Your task to perform on an android device: change alarm snooze length Image 0: 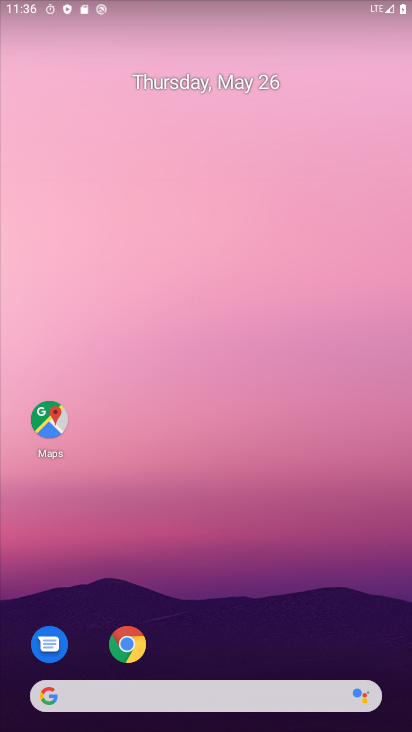
Step 0: drag from (129, 618) to (170, 113)
Your task to perform on an android device: change alarm snooze length Image 1: 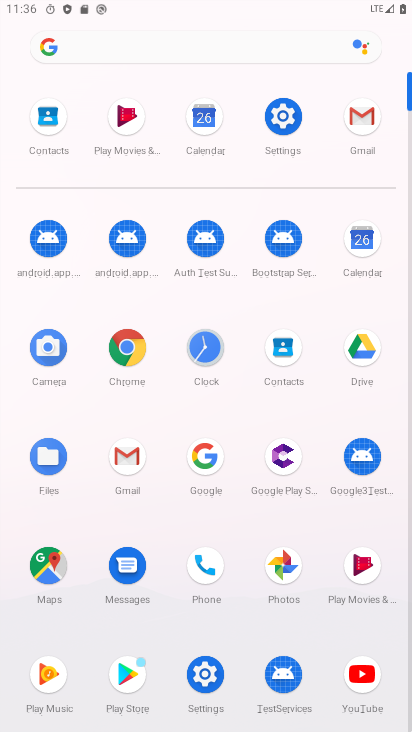
Step 1: click (199, 363)
Your task to perform on an android device: change alarm snooze length Image 2: 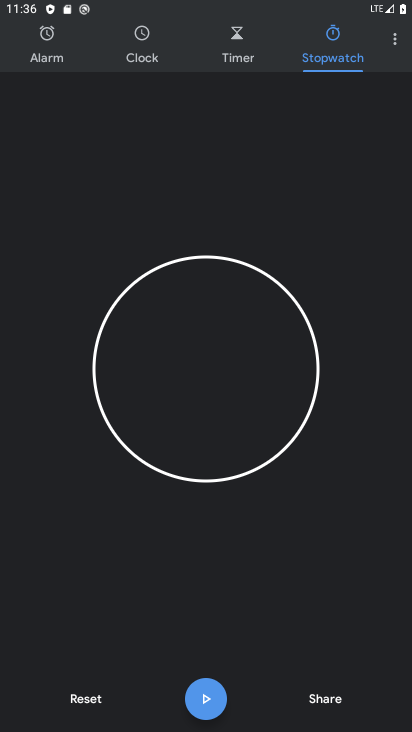
Step 2: click (395, 35)
Your task to perform on an android device: change alarm snooze length Image 3: 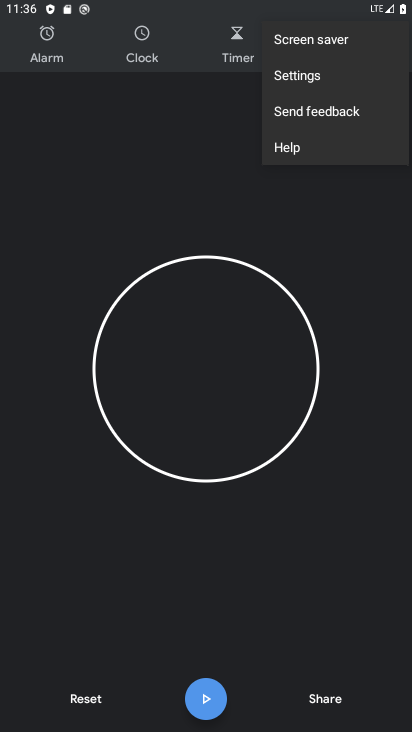
Step 3: click (312, 79)
Your task to perform on an android device: change alarm snooze length Image 4: 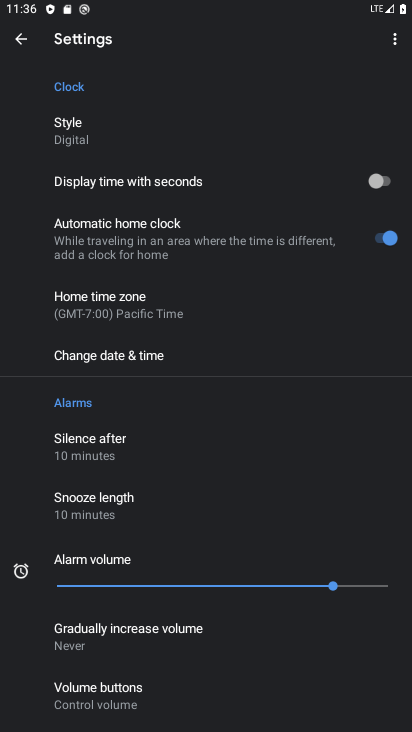
Step 4: click (105, 512)
Your task to perform on an android device: change alarm snooze length Image 5: 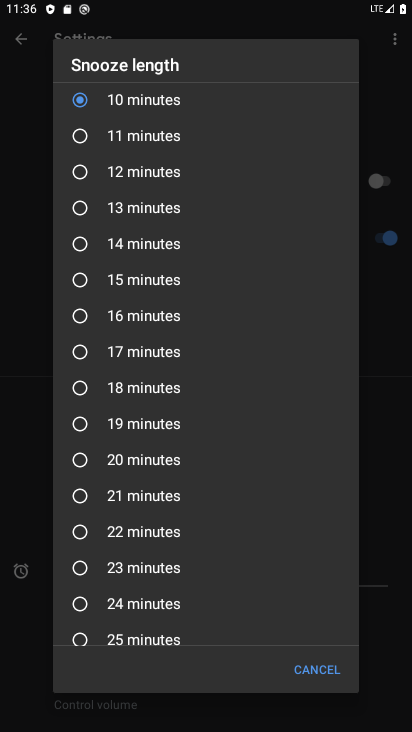
Step 5: click (136, 171)
Your task to perform on an android device: change alarm snooze length Image 6: 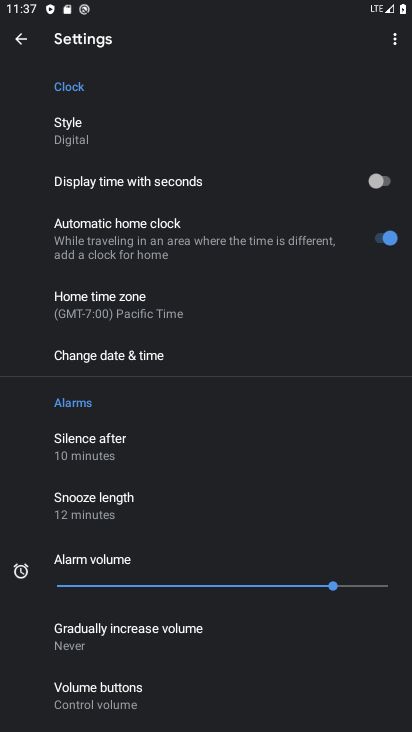
Step 6: task complete